Your task to perform on an android device: Check the weather Image 0: 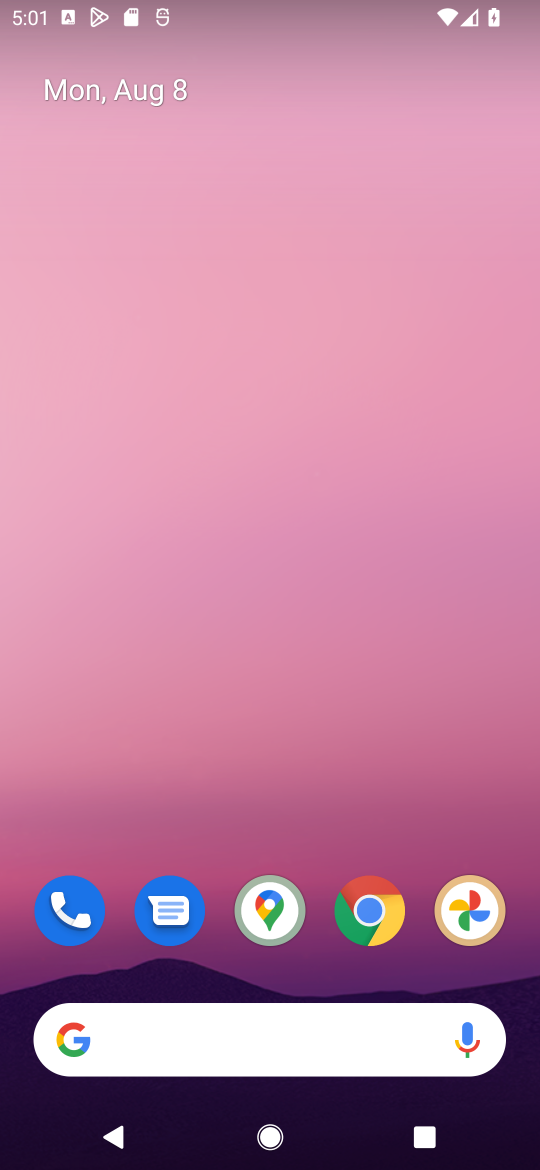
Step 0: click (309, 1054)
Your task to perform on an android device: Check the weather Image 1: 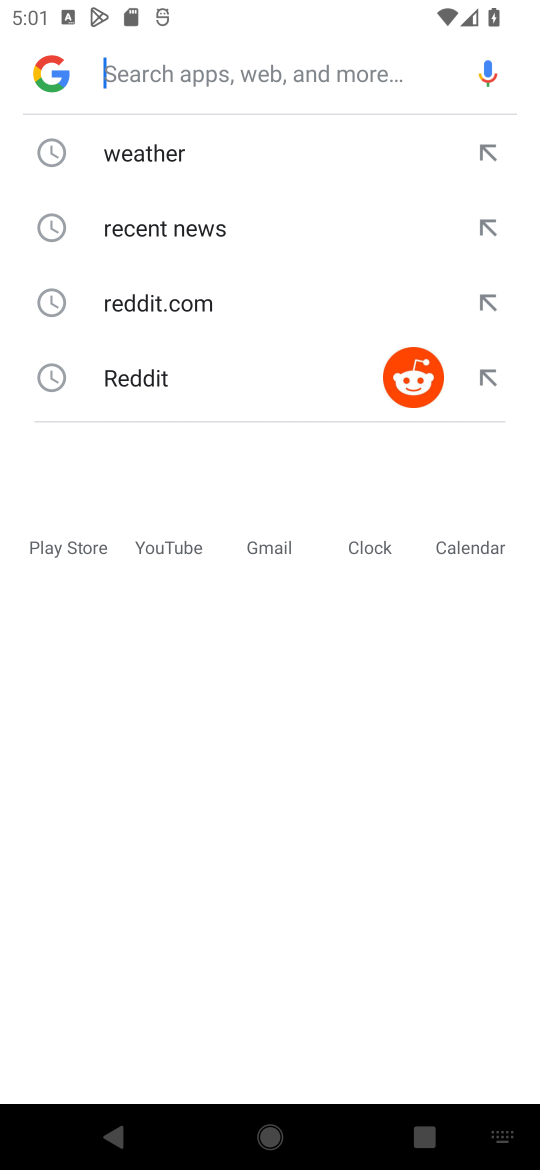
Step 1: click (148, 154)
Your task to perform on an android device: Check the weather Image 2: 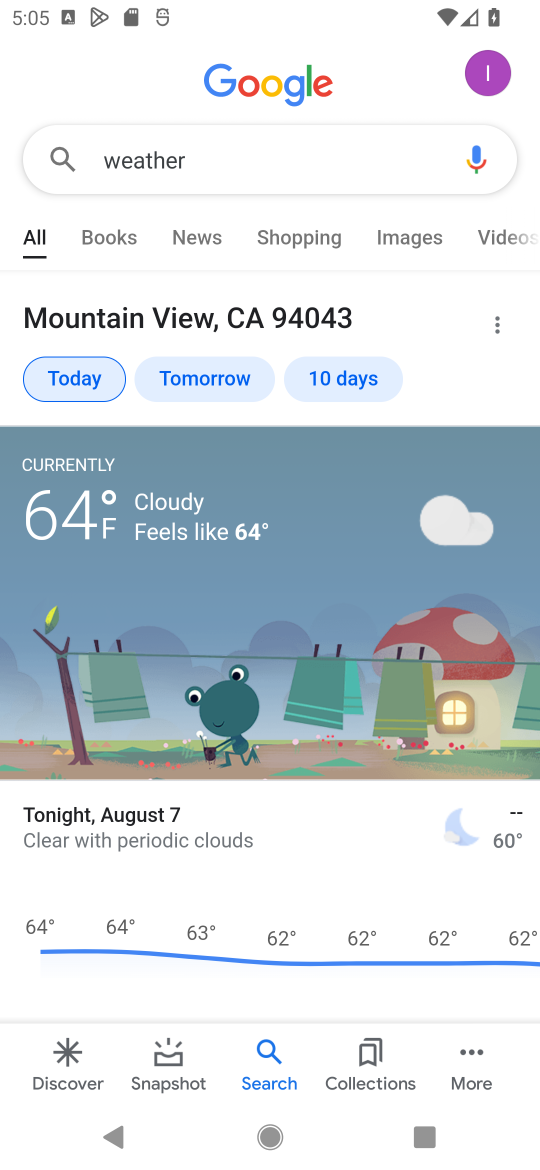
Step 2: task complete